Your task to perform on an android device: Open battery settings Image 0: 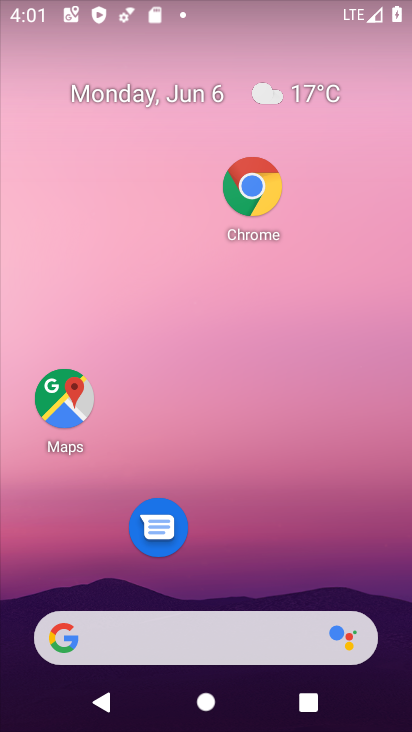
Step 0: drag from (211, 618) to (170, 251)
Your task to perform on an android device: Open battery settings Image 1: 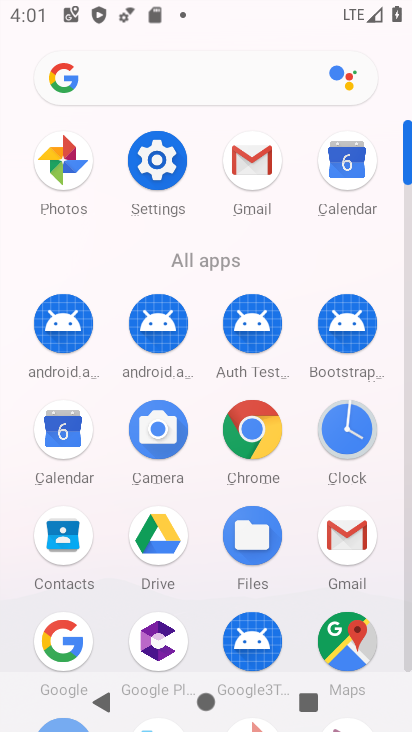
Step 1: click (136, 165)
Your task to perform on an android device: Open battery settings Image 2: 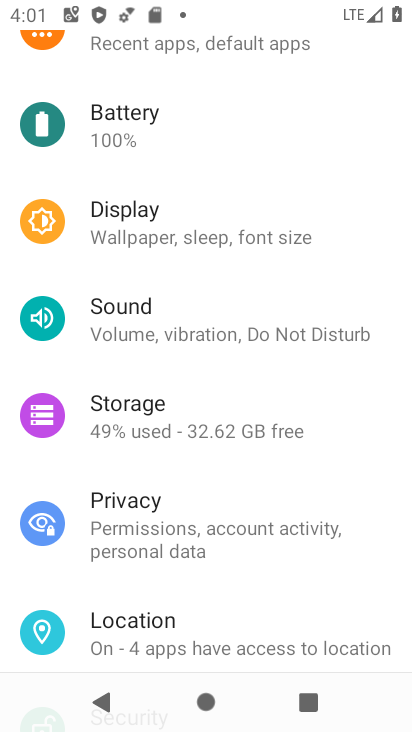
Step 2: click (132, 134)
Your task to perform on an android device: Open battery settings Image 3: 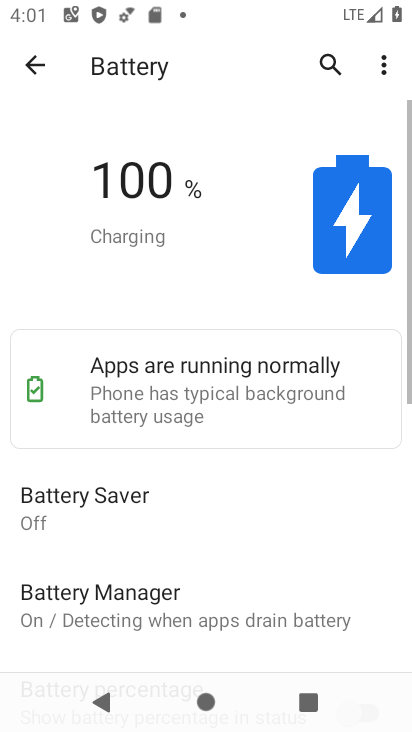
Step 3: task complete